Your task to perform on an android device: Go to Amazon Image 0: 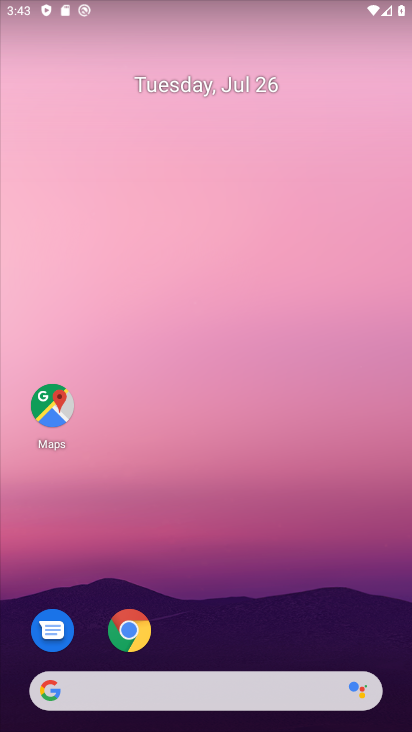
Step 0: drag from (199, 42) to (198, 176)
Your task to perform on an android device: Go to Amazon Image 1: 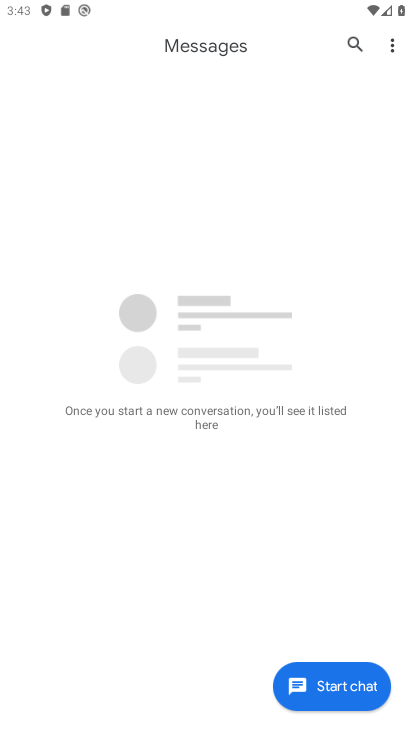
Step 1: drag from (219, 473) to (184, 123)
Your task to perform on an android device: Go to Amazon Image 2: 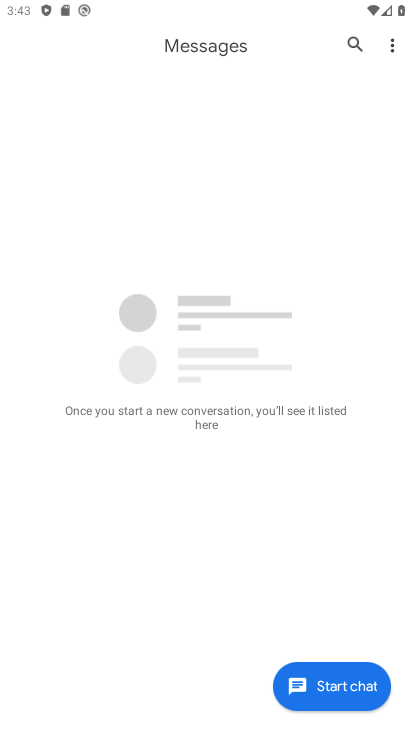
Step 2: drag from (158, 518) to (147, 190)
Your task to perform on an android device: Go to Amazon Image 3: 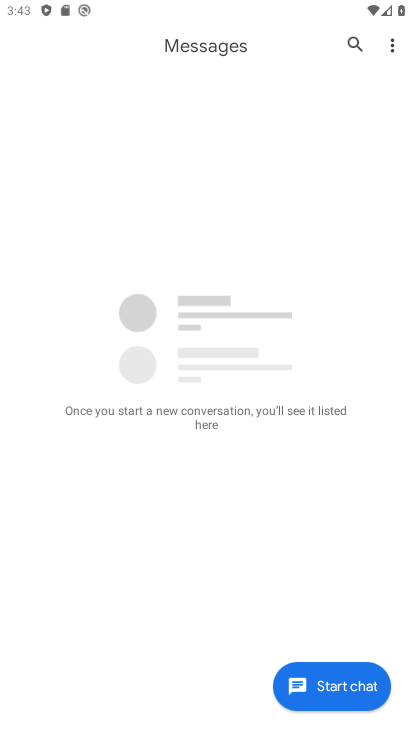
Step 3: drag from (148, 444) to (143, 103)
Your task to perform on an android device: Go to Amazon Image 4: 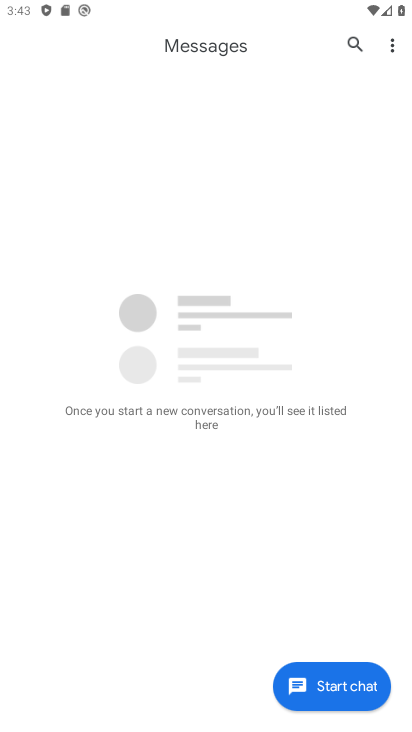
Step 4: press back button
Your task to perform on an android device: Go to Amazon Image 5: 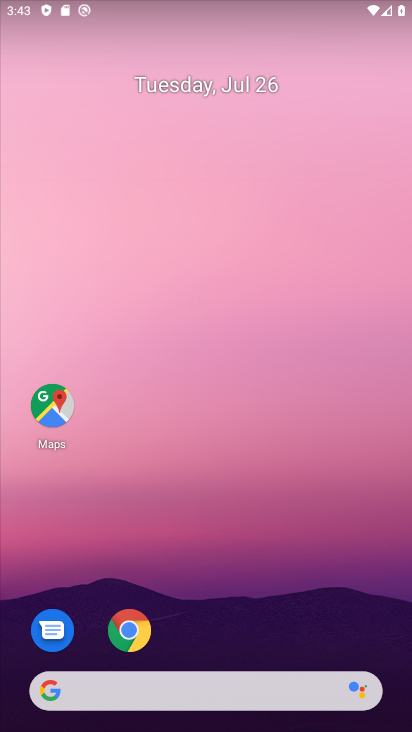
Step 5: drag from (175, 501) to (124, 88)
Your task to perform on an android device: Go to Amazon Image 6: 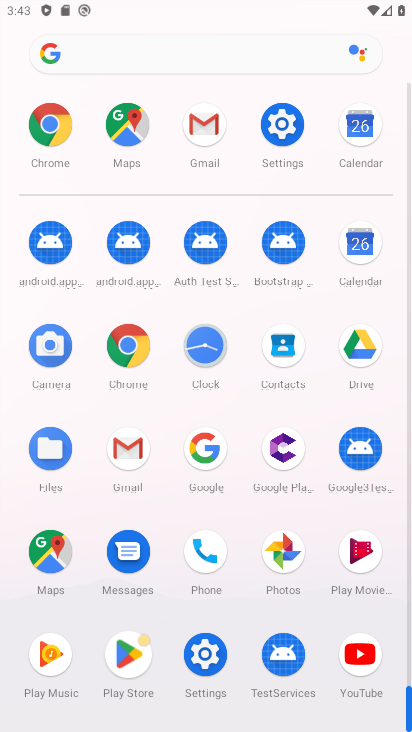
Step 6: click (128, 340)
Your task to perform on an android device: Go to Amazon Image 7: 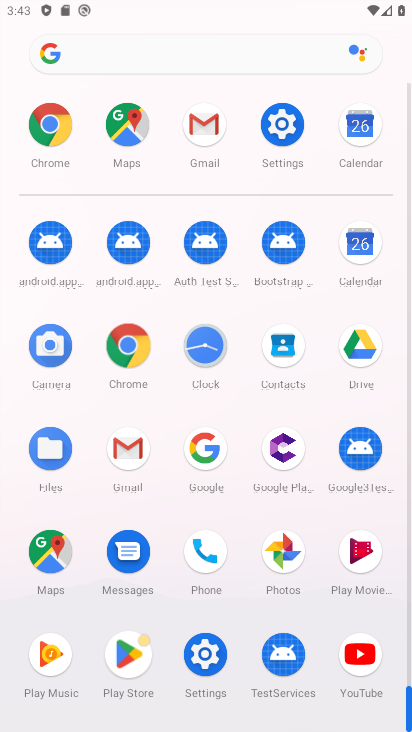
Step 7: click (128, 340)
Your task to perform on an android device: Go to Amazon Image 8: 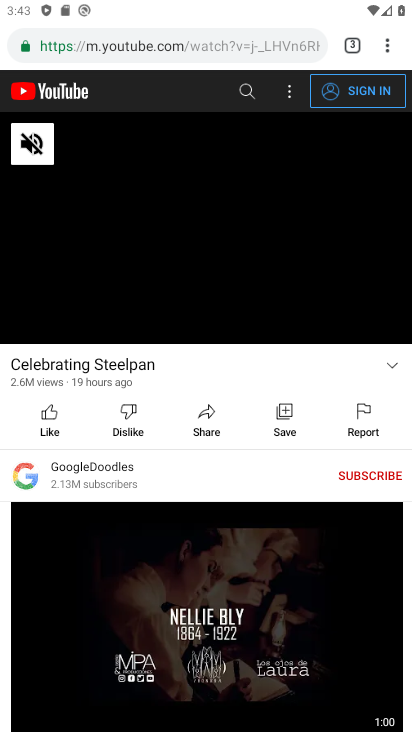
Step 8: drag from (177, 305) to (179, 454)
Your task to perform on an android device: Go to Amazon Image 9: 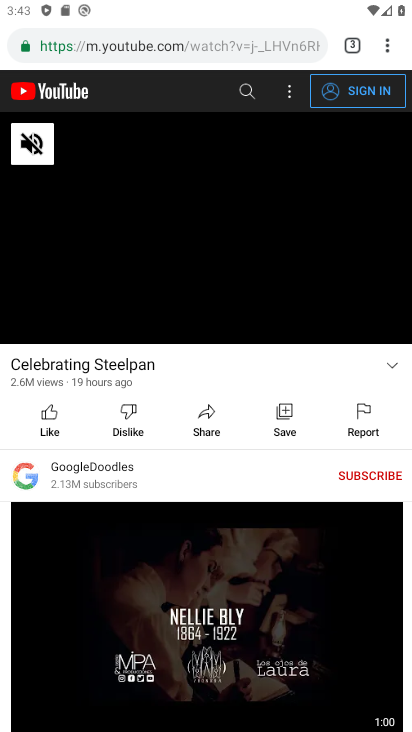
Step 9: drag from (168, 285) to (185, 483)
Your task to perform on an android device: Go to Amazon Image 10: 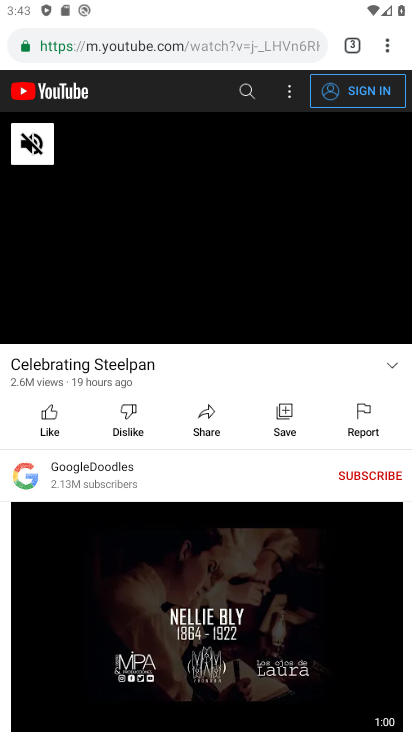
Step 10: drag from (164, 222) to (179, 465)
Your task to perform on an android device: Go to Amazon Image 11: 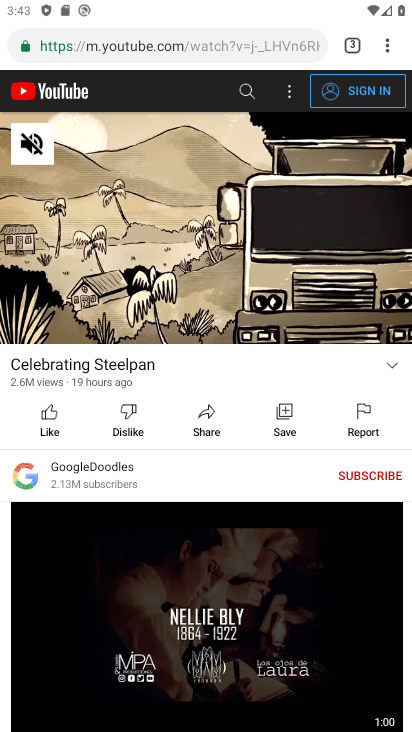
Step 11: drag from (245, 133) to (247, 326)
Your task to perform on an android device: Go to Amazon Image 12: 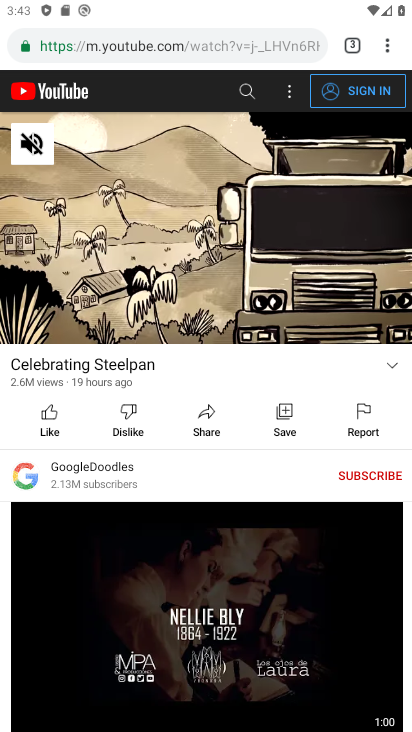
Step 12: drag from (387, 46) to (210, 99)
Your task to perform on an android device: Go to Amazon Image 13: 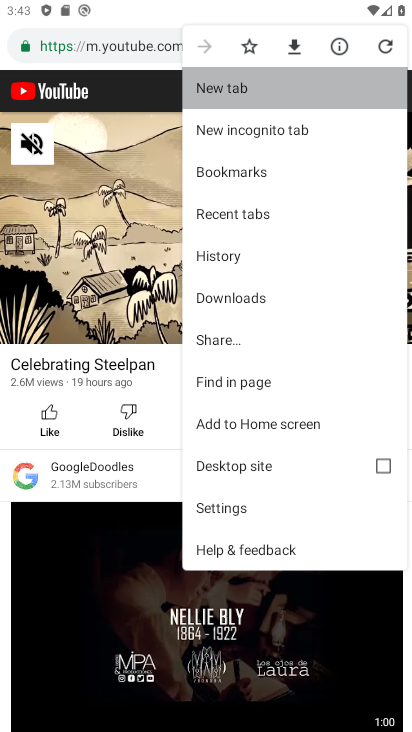
Step 13: click (208, 91)
Your task to perform on an android device: Go to Amazon Image 14: 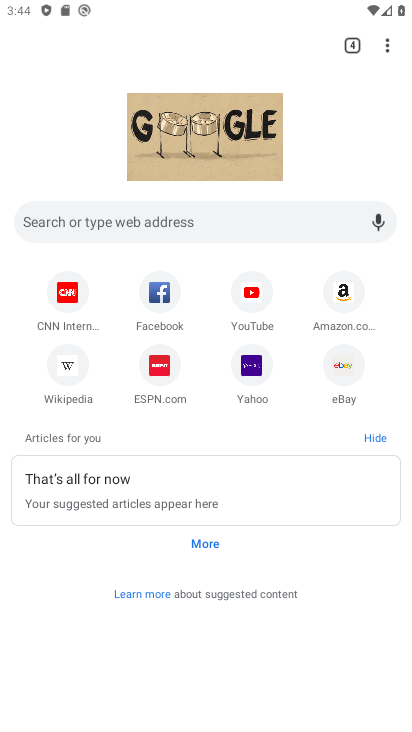
Step 14: click (343, 288)
Your task to perform on an android device: Go to Amazon Image 15: 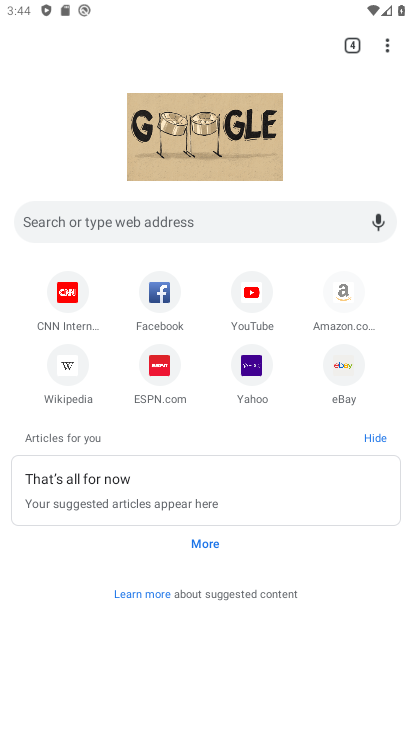
Step 15: click (343, 288)
Your task to perform on an android device: Go to Amazon Image 16: 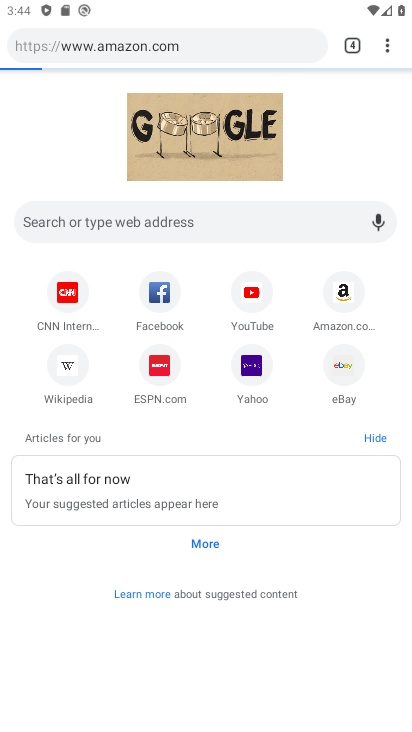
Step 16: click (342, 288)
Your task to perform on an android device: Go to Amazon Image 17: 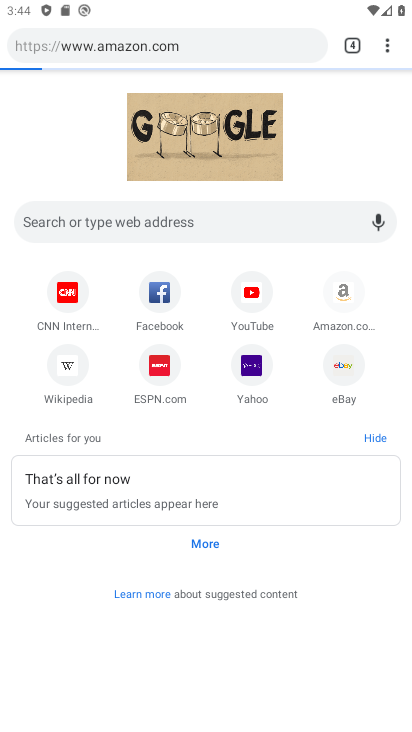
Step 17: click (342, 287)
Your task to perform on an android device: Go to Amazon Image 18: 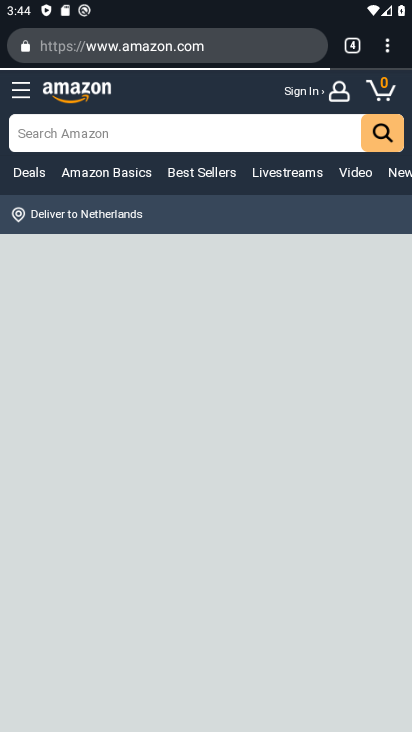
Step 18: task complete